Your task to perform on an android device: toggle wifi Image 0: 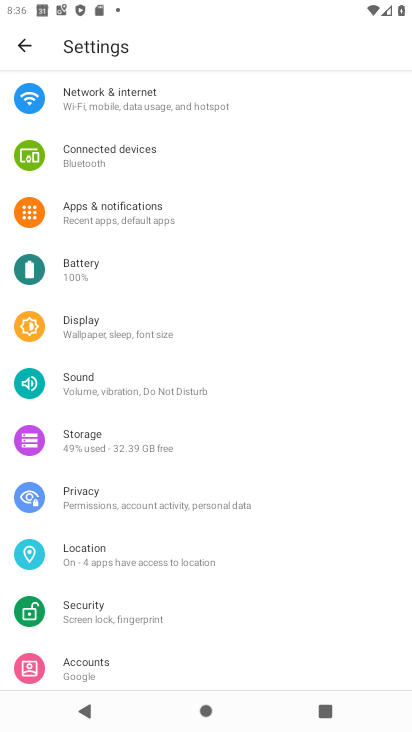
Step 0: drag from (201, 13) to (138, 530)
Your task to perform on an android device: toggle wifi Image 1: 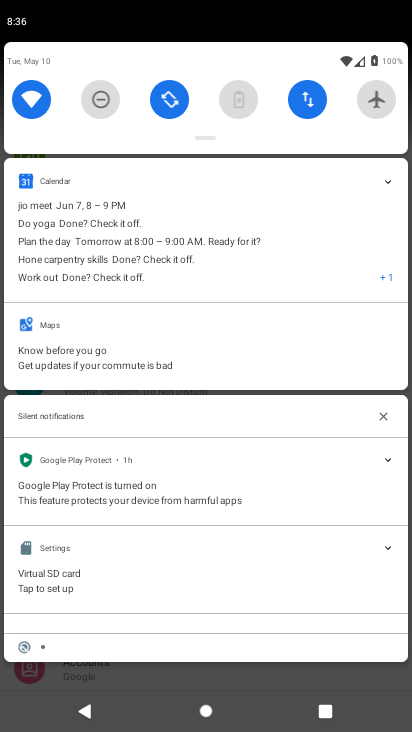
Step 1: click (27, 110)
Your task to perform on an android device: toggle wifi Image 2: 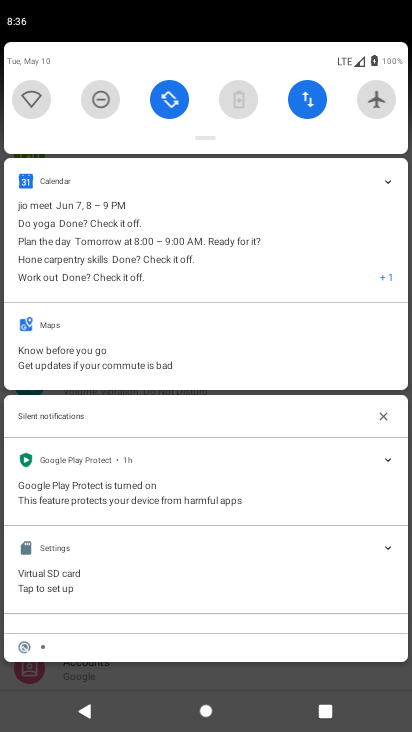
Step 2: click (27, 110)
Your task to perform on an android device: toggle wifi Image 3: 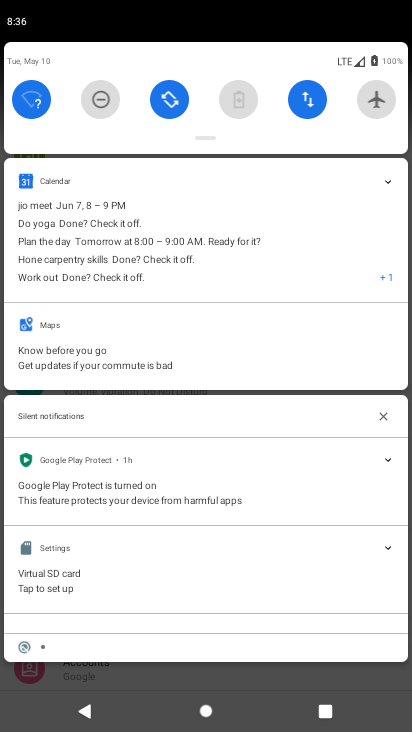
Step 3: click (27, 110)
Your task to perform on an android device: toggle wifi Image 4: 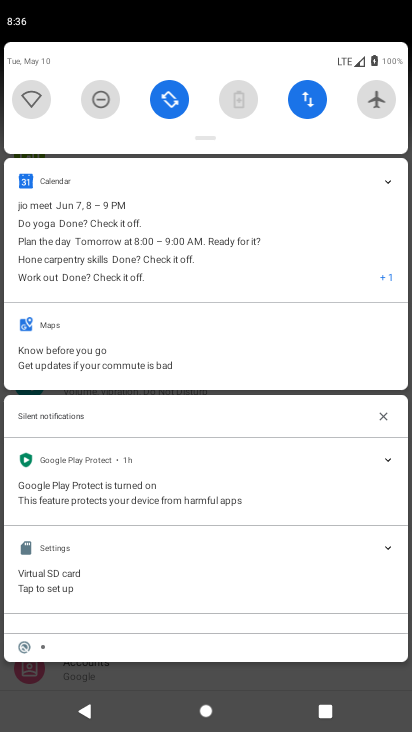
Step 4: click (27, 110)
Your task to perform on an android device: toggle wifi Image 5: 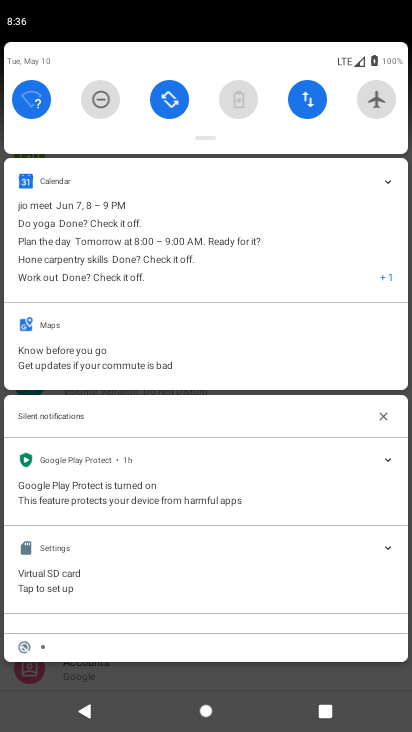
Step 5: task complete